Your task to perform on an android device: See recent photos Image 0: 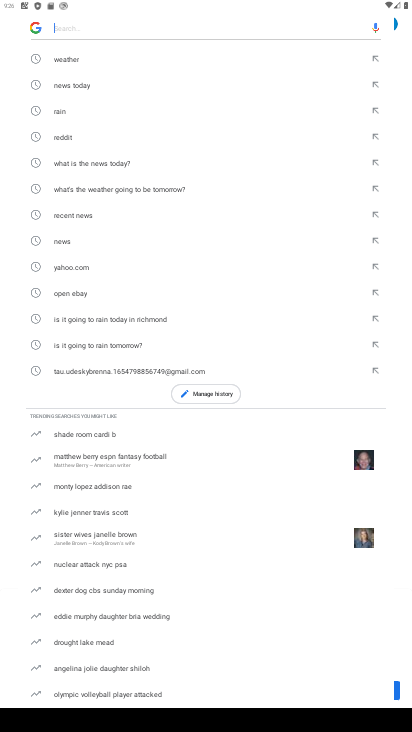
Step 0: press home button
Your task to perform on an android device: See recent photos Image 1: 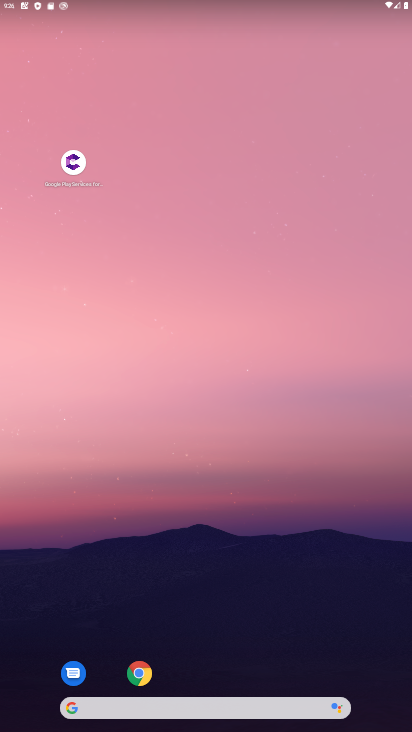
Step 1: drag from (233, 634) to (239, 0)
Your task to perform on an android device: See recent photos Image 2: 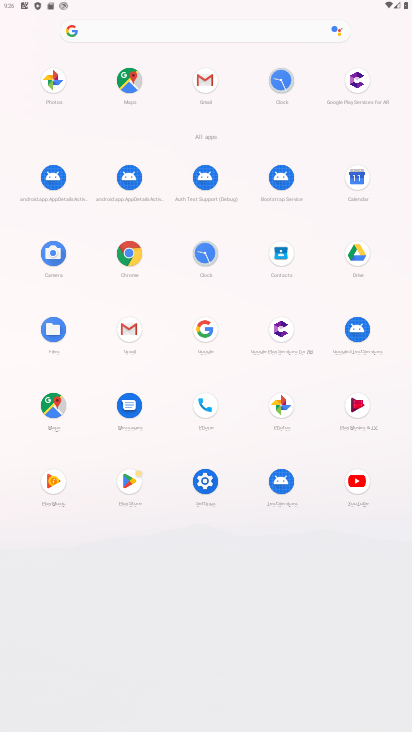
Step 2: click (289, 399)
Your task to perform on an android device: See recent photos Image 3: 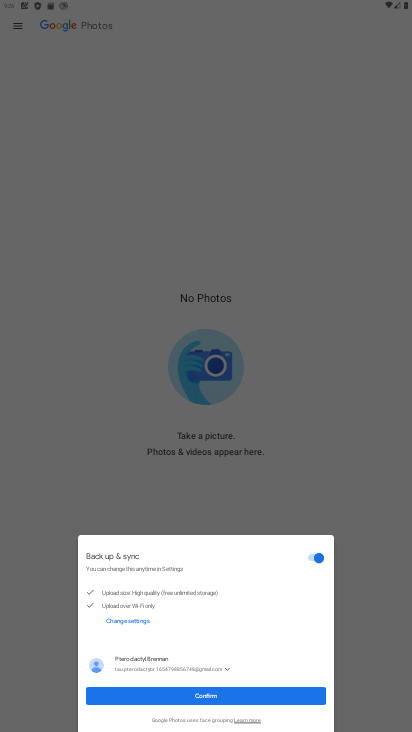
Step 3: click (239, 696)
Your task to perform on an android device: See recent photos Image 4: 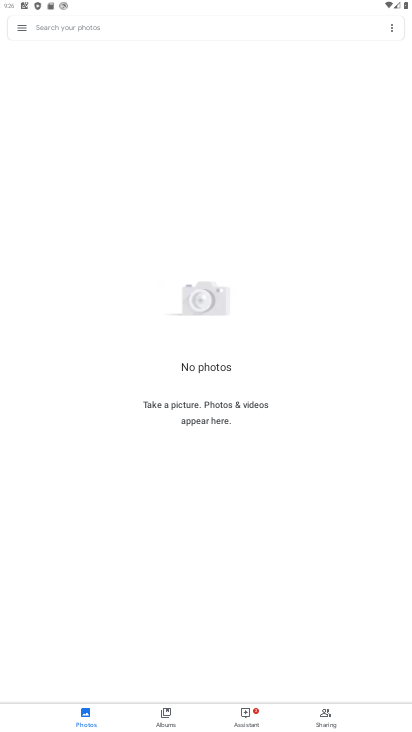
Step 4: click (84, 720)
Your task to perform on an android device: See recent photos Image 5: 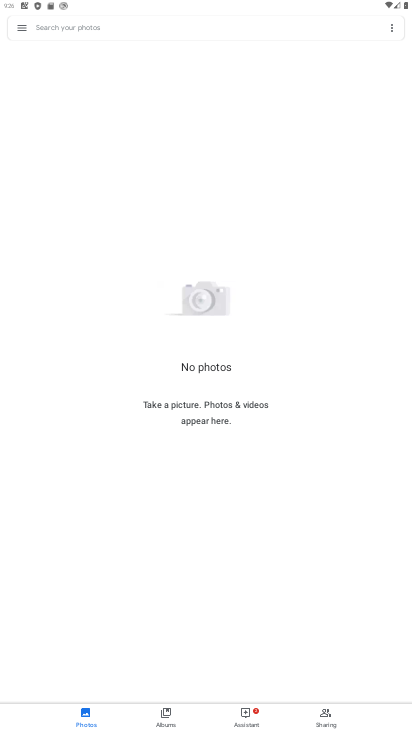
Step 5: task complete